Your task to perform on an android device: Open ESPN.com Image 0: 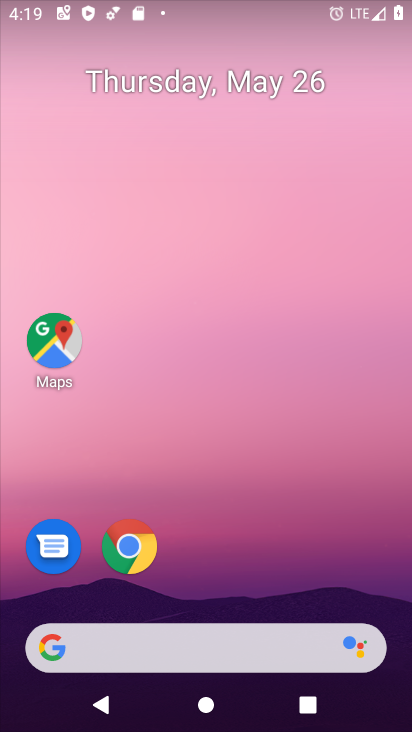
Step 0: click (128, 545)
Your task to perform on an android device: Open ESPN.com Image 1: 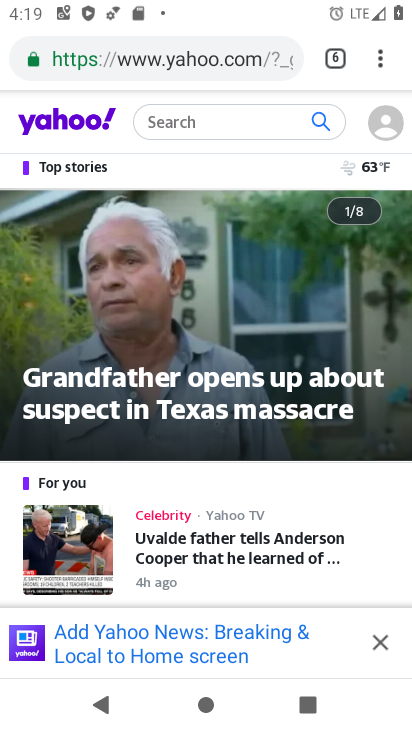
Step 1: click (336, 58)
Your task to perform on an android device: Open ESPN.com Image 2: 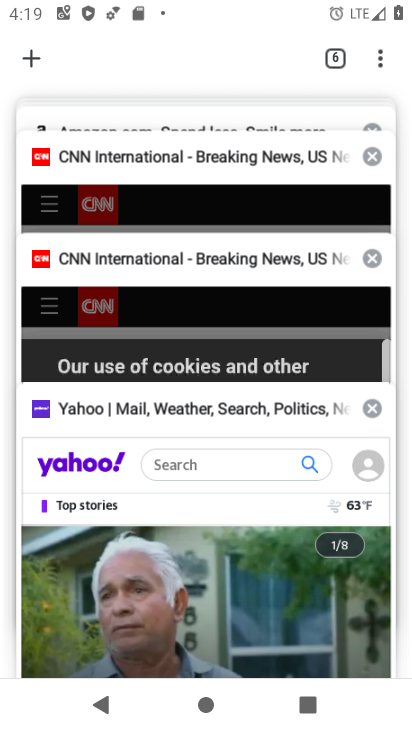
Step 2: drag from (145, 173) to (148, 578)
Your task to perform on an android device: Open ESPN.com Image 3: 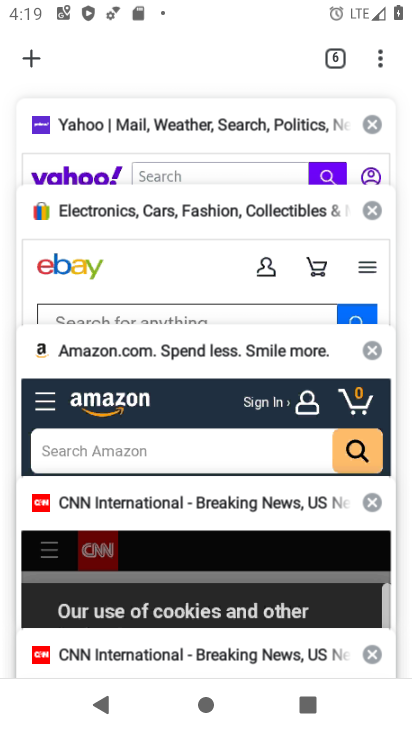
Step 3: drag from (184, 248) to (178, 609)
Your task to perform on an android device: Open ESPN.com Image 4: 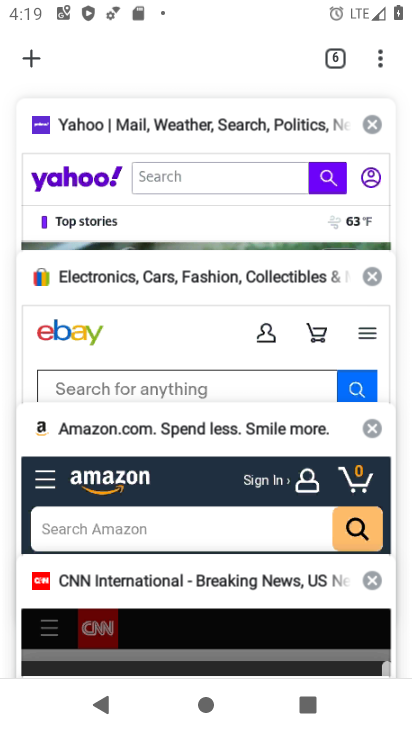
Step 4: click (32, 53)
Your task to perform on an android device: Open ESPN.com Image 5: 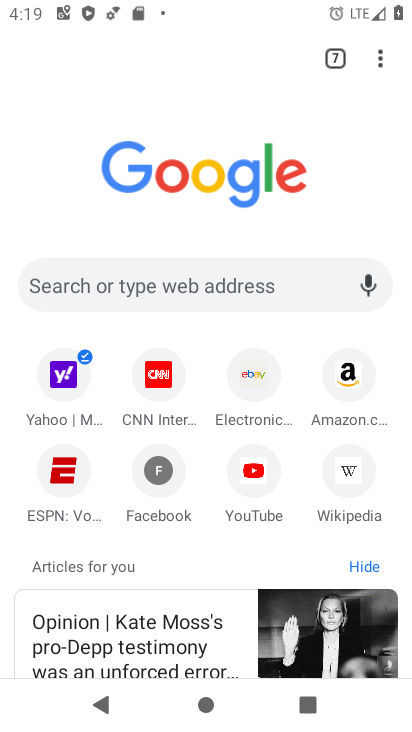
Step 5: click (69, 480)
Your task to perform on an android device: Open ESPN.com Image 6: 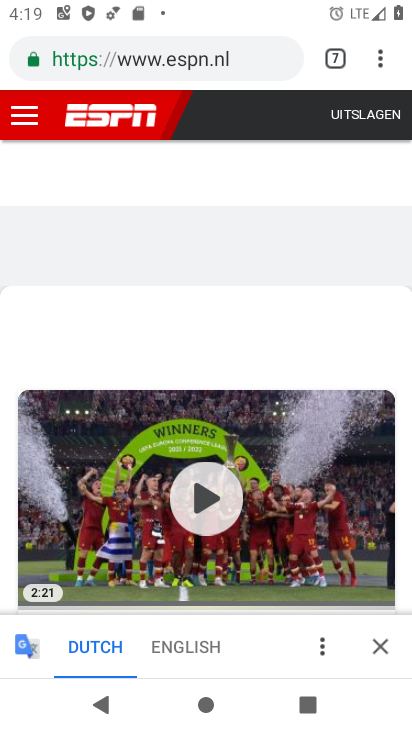
Step 6: task complete